Your task to perform on an android device: delete a single message in the gmail app Image 0: 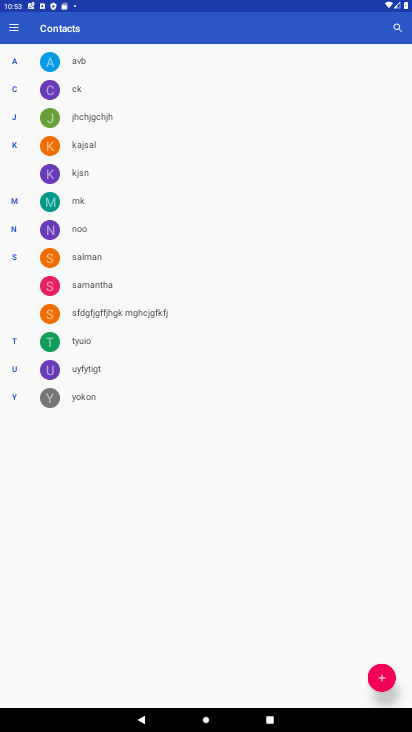
Step 0: press home button
Your task to perform on an android device: delete a single message in the gmail app Image 1: 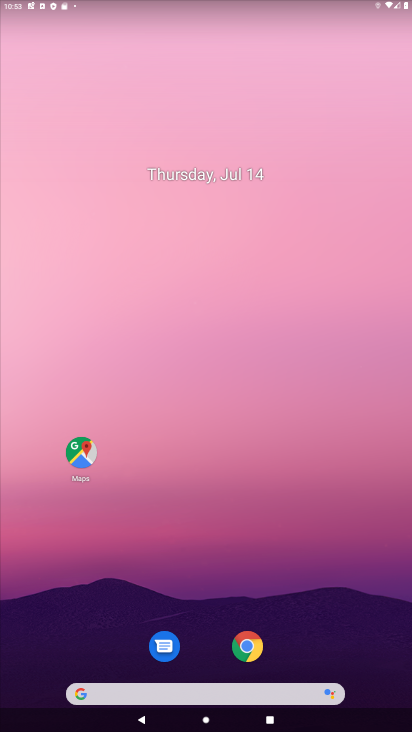
Step 1: drag from (199, 647) to (205, 215)
Your task to perform on an android device: delete a single message in the gmail app Image 2: 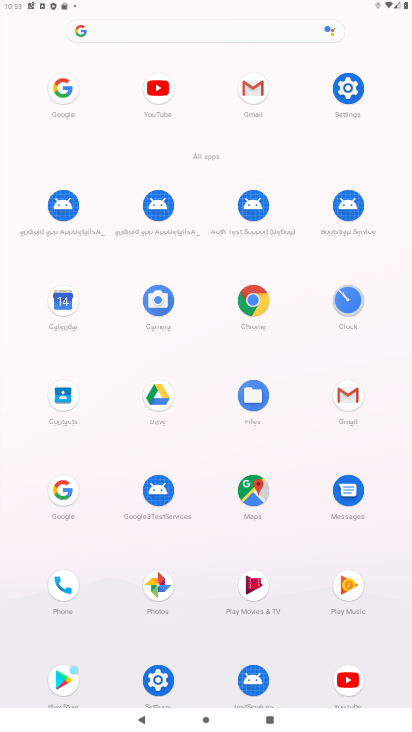
Step 2: click (241, 92)
Your task to perform on an android device: delete a single message in the gmail app Image 3: 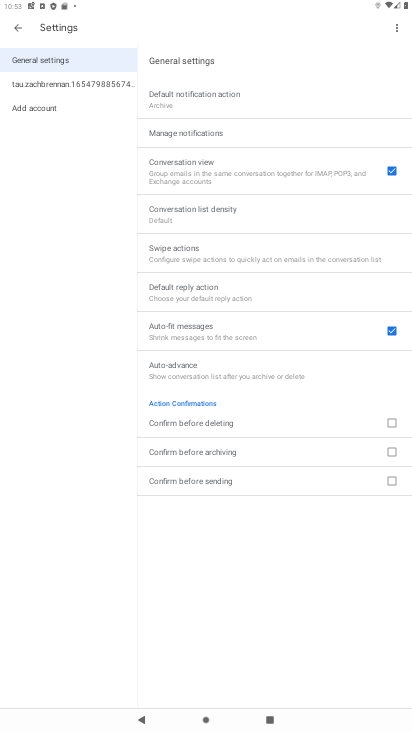
Step 3: click (21, 31)
Your task to perform on an android device: delete a single message in the gmail app Image 4: 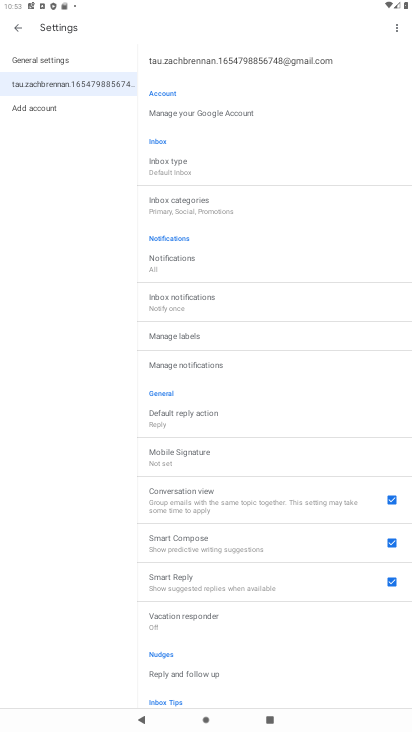
Step 4: click (21, 31)
Your task to perform on an android device: delete a single message in the gmail app Image 5: 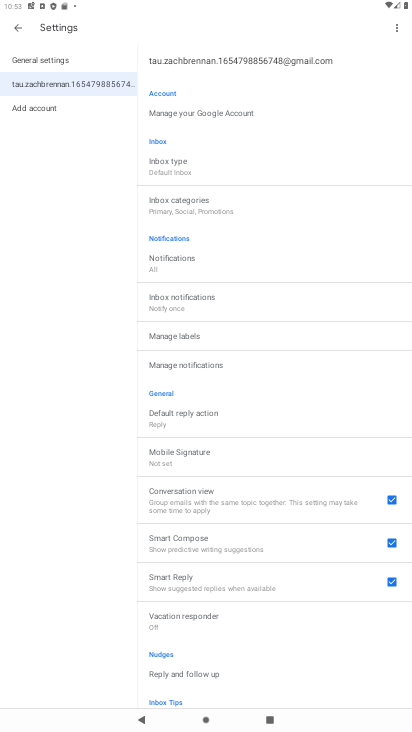
Step 5: click (21, 31)
Your task to perform on an android device: delete a single message in the gmail app Image 6: 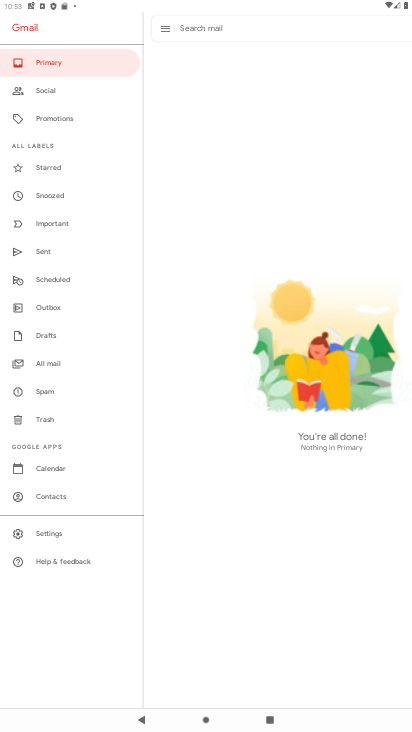
Step 6: click (79, 363)
Your task to perform on an android device: delete a single message in the gmail app Image 7: 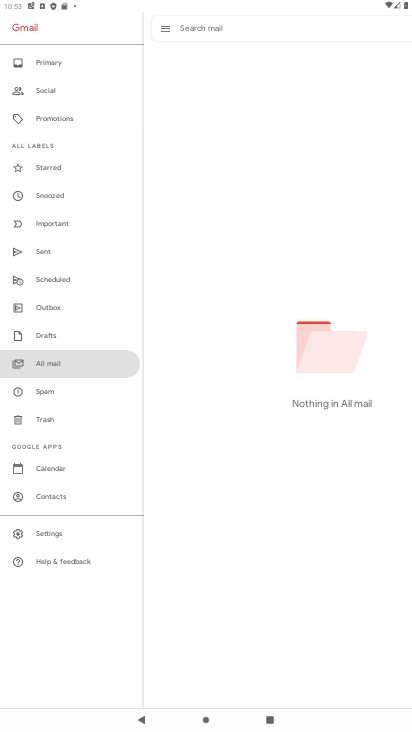
Step 7: task complete